Your task to perform on an android device: check the backup settings in the google photos Image 0: 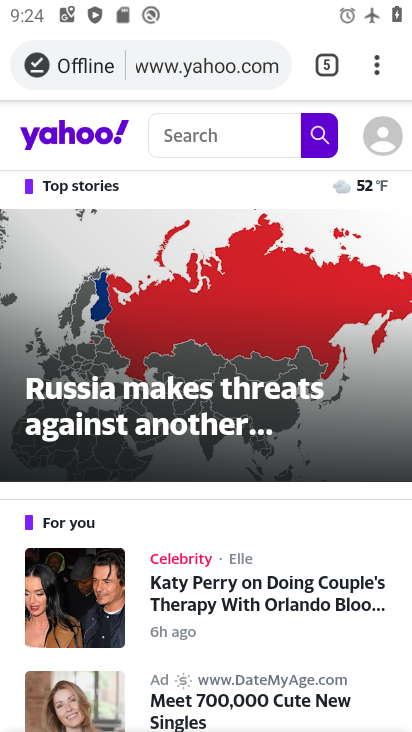
Step 0: click (366, 68)
Your task to perform on an android device: check the backup settings in the google photos Image 1: 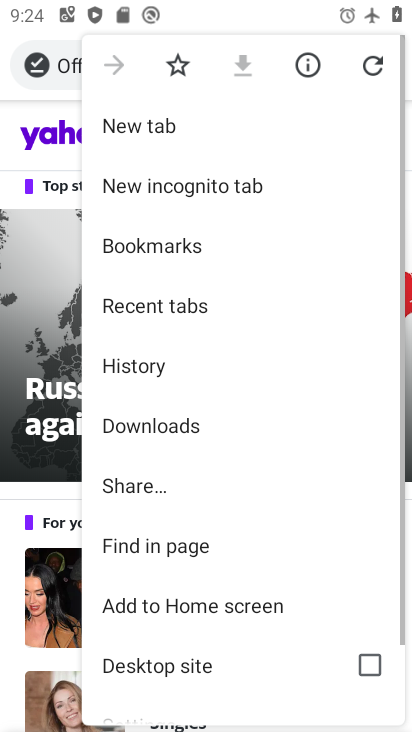
Step 1: press home button
Your task to perform on an android device: check the backup settings in the google photos Image 2: 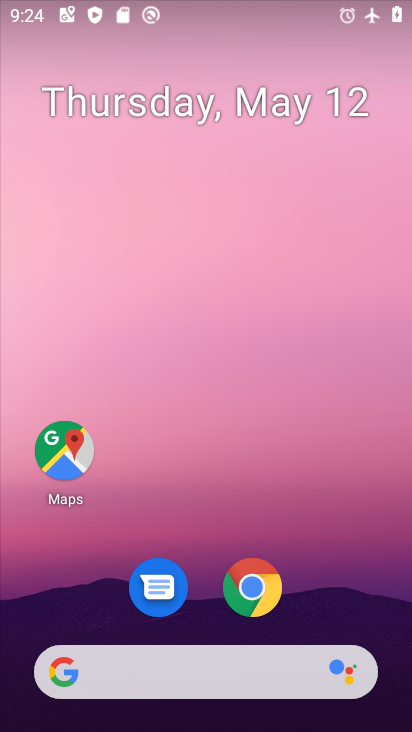
Step 2: drag from (306, 539) to (333, 199)
Your task to perform on an android device: check the backup settings in the google photos Image 3: 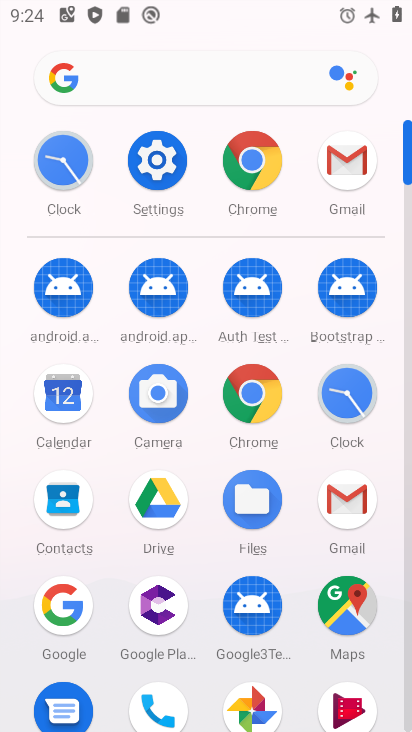
Step 3: click (259, 700)
Your task to perform on an android device: check the backup settings in the google photos Image 4: 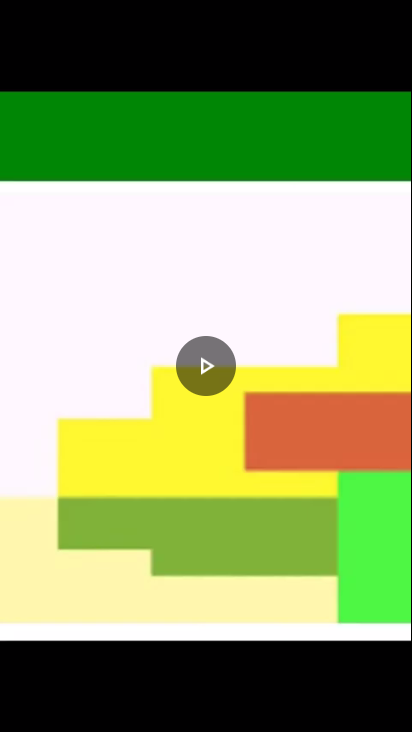
Step 4: press back button
Your task to perform on an android device: check the backup settings in the google photos Image 5: 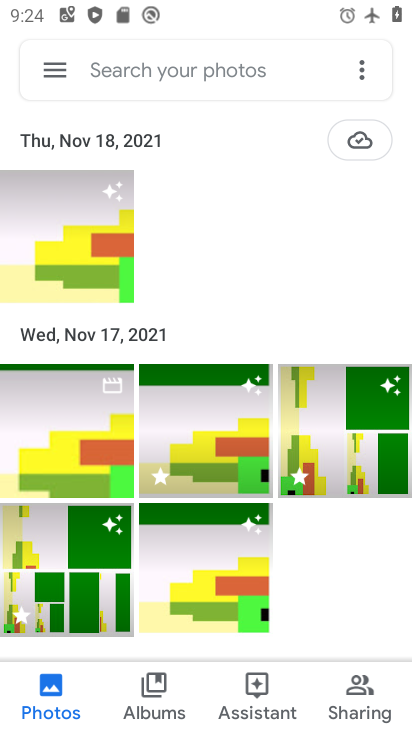
Step 5: click (30, 72)
Your task to perform on an android device: check the backup settings in the google photos Image 6: 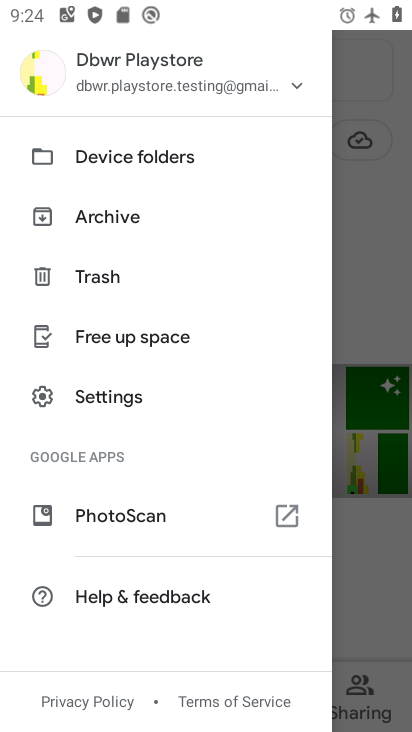
Step 6: click (106, 388)
Your task to perform on an android device: check the backup settings in the google photos Image 7: 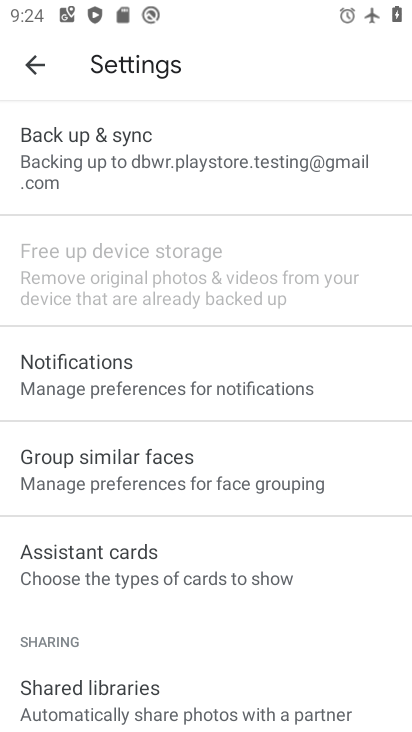
Step 7: click (141, 145)
Your task to perform on an android device: check the backup settings in the google photos Image 8: 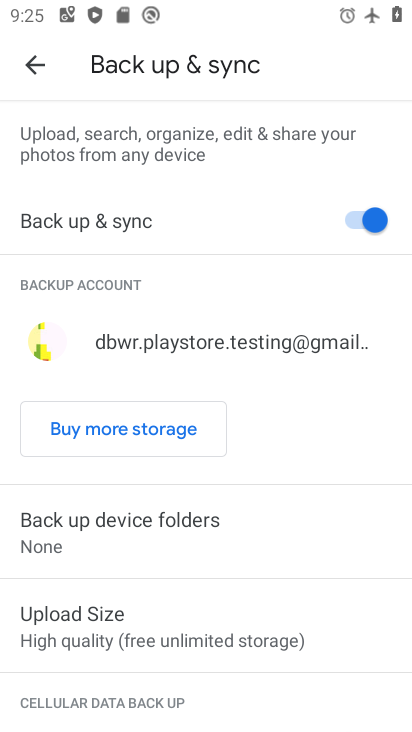
Step 8: task complete